Your task to perform on an android device: manage bookmarks in the chrome app Image 0: 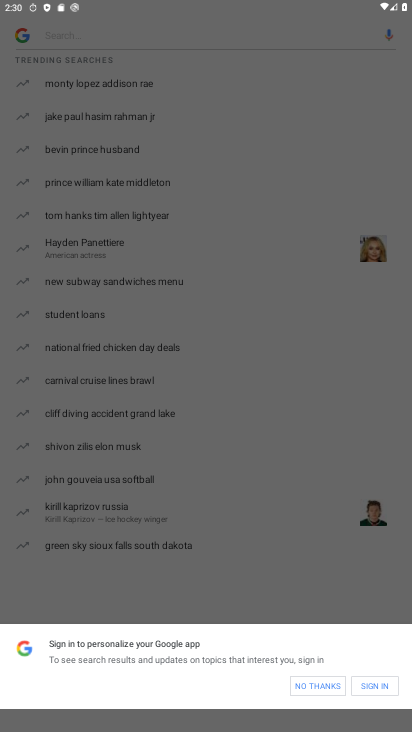
Step 0: press home button
Your task to perform on an android device: manage bookmarks in the chrome app Image 1: 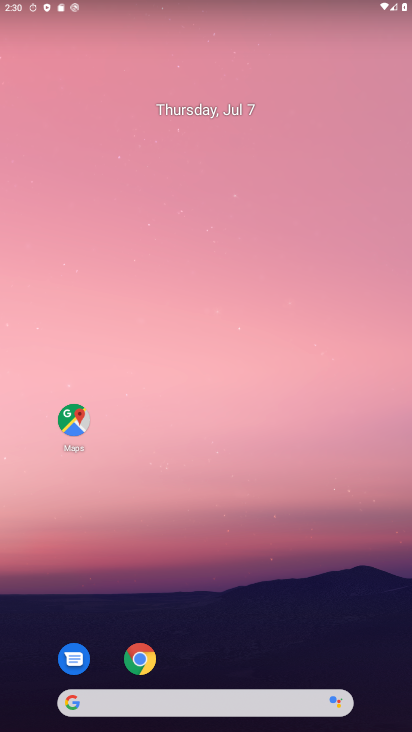
Step 1: click (130, 653)
Your task to perform on an android device: manage bookmarks in the chrome app Image 2: 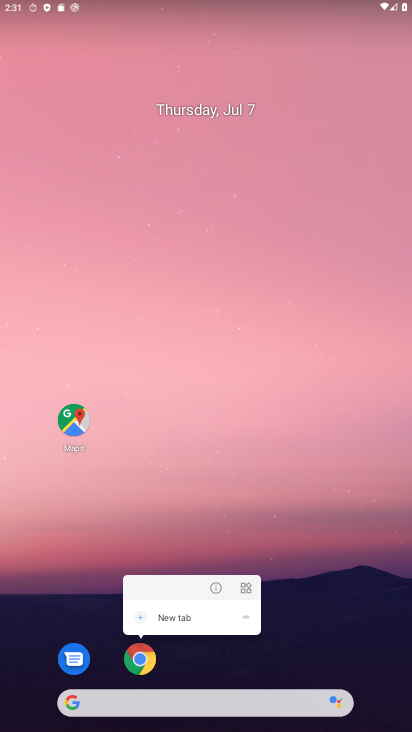
Step 2: click (140, 664)
Your task to perform on an android device: manage bookmarks in the chrome app Image 3: 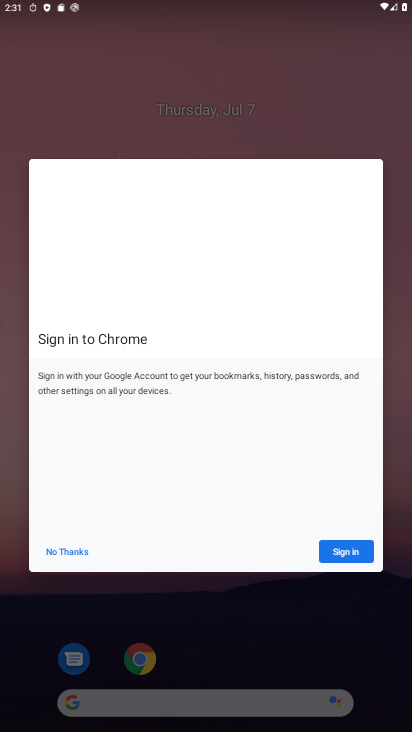
Step 3: click (356, 549)
Your task to perform on an android device: manage bookmarks in the chrome app Image 4: 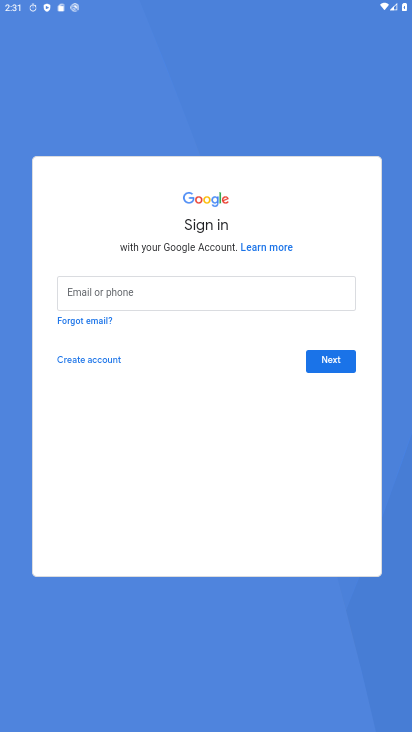
Step 4: task complete